Your task to perform on an android device: Open the web browser Image 0: 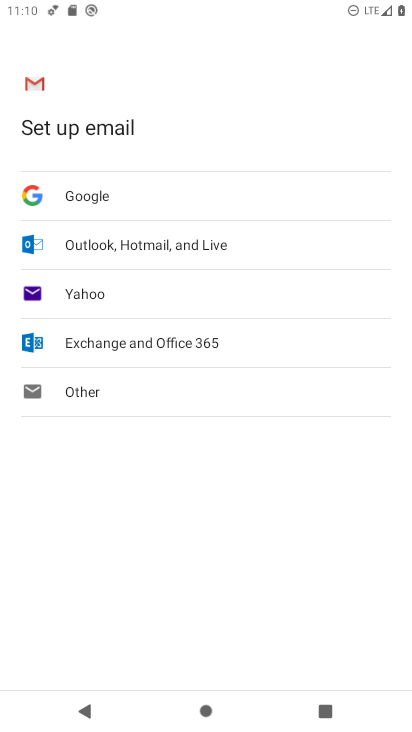
Step 0: press home button
Your task to perform on an android device: Open the web browser Image 1: 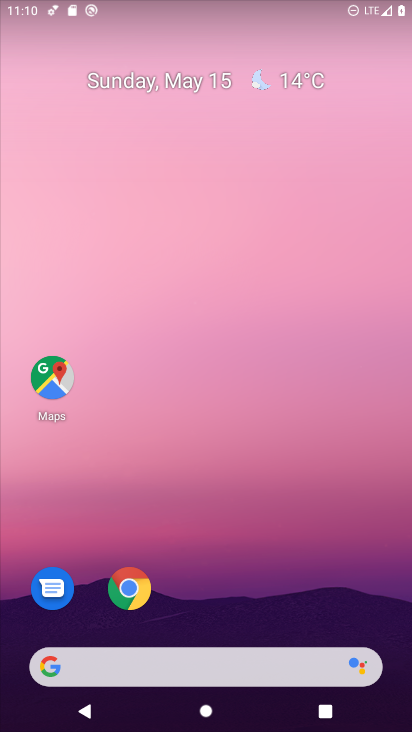
Step 1: click (139, 599)
Your task to perform on an android device: Open the web browser Image 2: 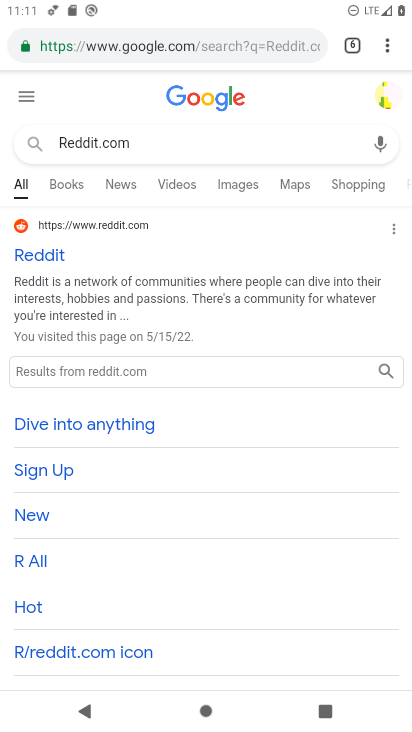
Step 2: task complete